Your task to perform on an android device: move a message to another label in the gmail app Image 0: 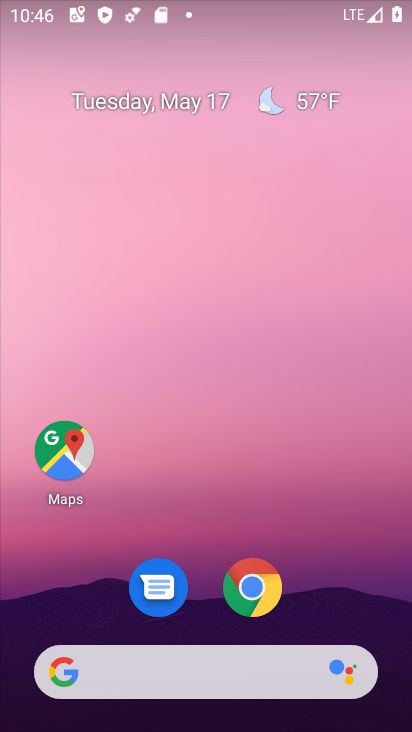
Step 0: drag from (383, 607) to (266, 92)
Your task to perform on an android device: move a message to another label in the gmail app Image 1: 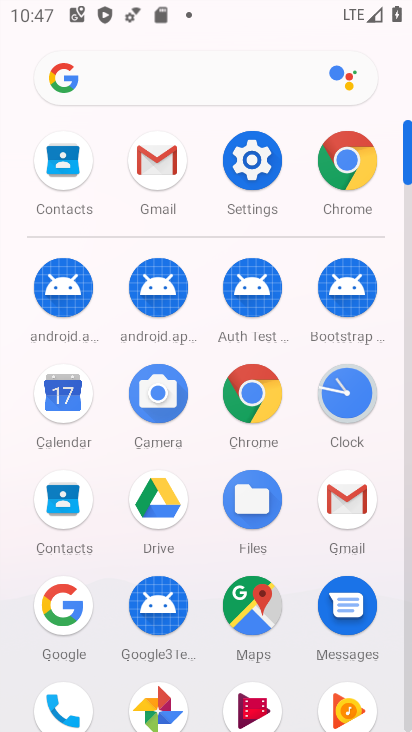
Step 1: click (352, 495)
Your task to perform on an android device: move a message to another label in the gmail app Image 2: 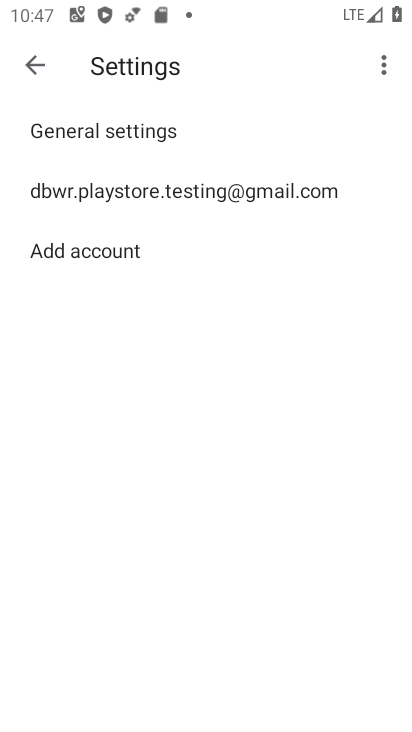
Step 2: task complete